Your task to perform on an android device: Open the calendar and show me this week's events? Image 0: 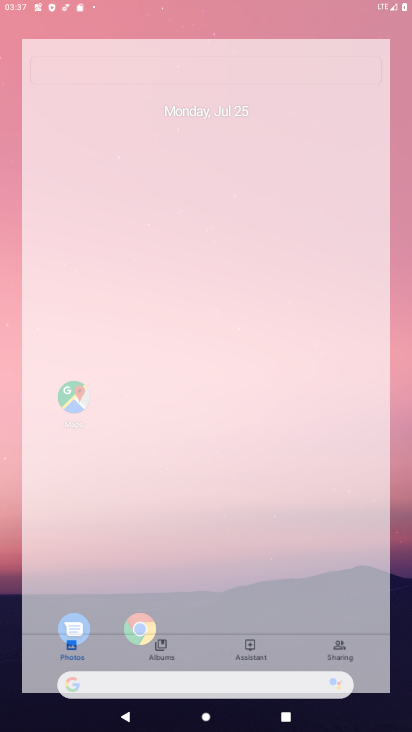
Step 0: drag from (240, 623) to (264, 285)
Your task to perform on an android device: Open the calendar and show me this week's events? Image 1: 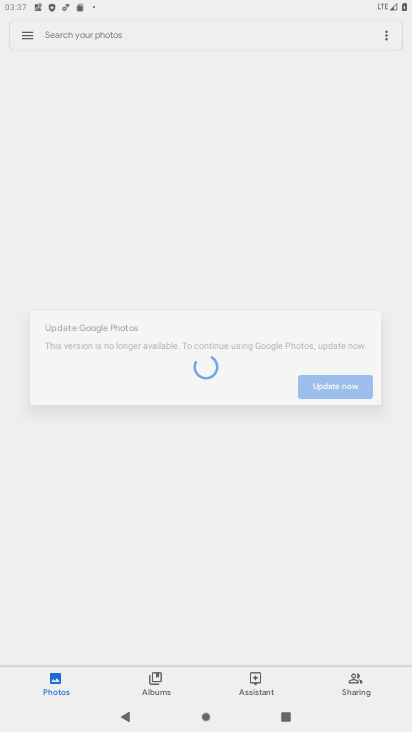
Step 1: press home button
Your task to perform on an android device: Open the calendar and show me this week's events? Image 2: 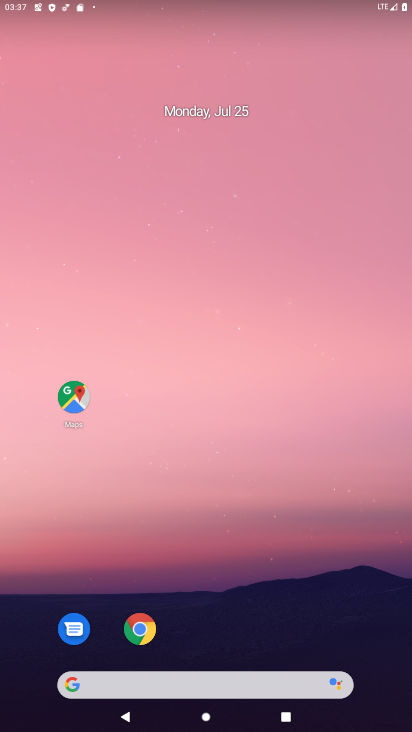
Step 2: drag from (227, 537) to (273, 0)
Your task to perform on an android device: Open the calendar and show me this week's events? Image 3: 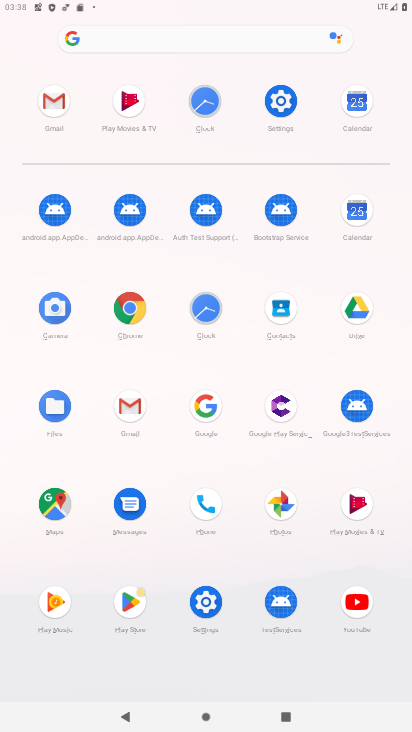
Step 3: click (358, 111)
Your task to perform on an android device: Open the calendar and show me this week's events? Image 4: 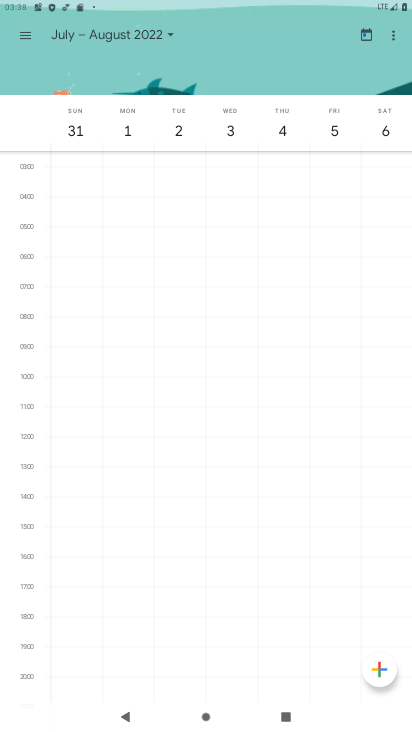
Step 4: click (375, 33)
Your task to perform on an android device: Open the calendar and show me this week's events? Image 5: 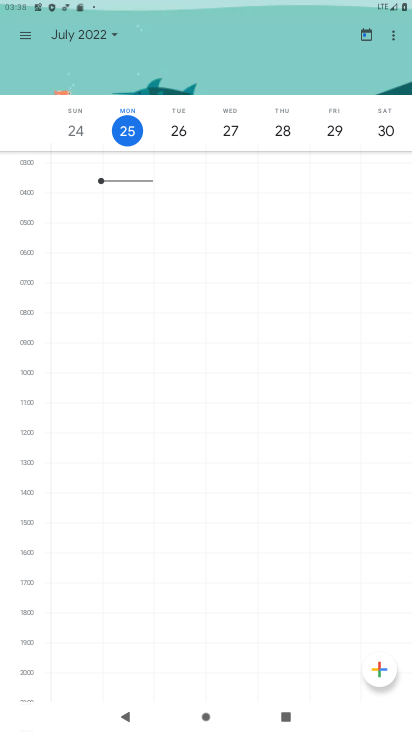
Step 5: click (12, 32)
Your task to perform on an android device: Open the calendar and show me this week's events? Image 6: 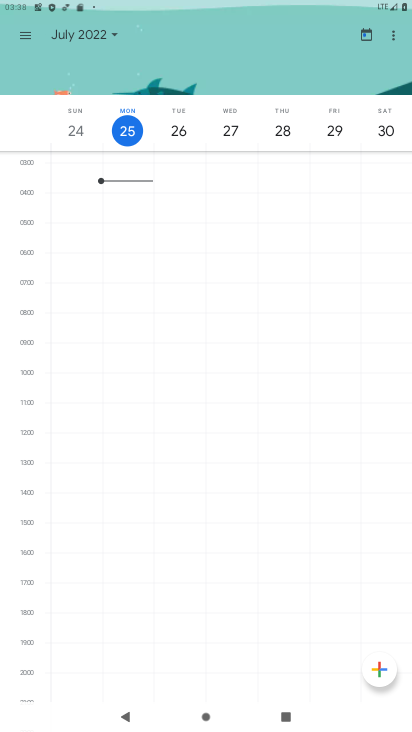
Step 6: task complete